Your task to perform on an android device: Open accessibility settings Image 0: 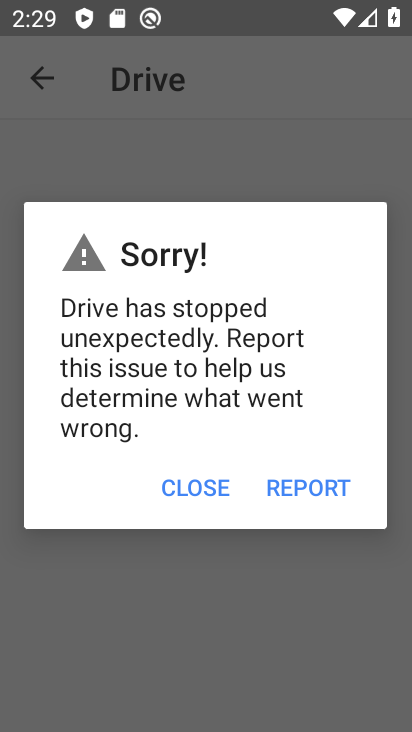
Step 0: press home button
Your task to perform on an android device: Open accessibility settings Image 1: 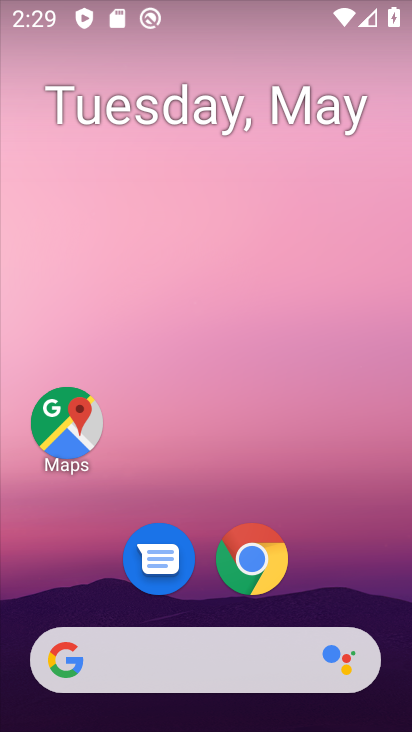
Step 1: drag from (203, 612) to (199, 248)
Your task to perform on an android device: Open accessibility settings Image 2: 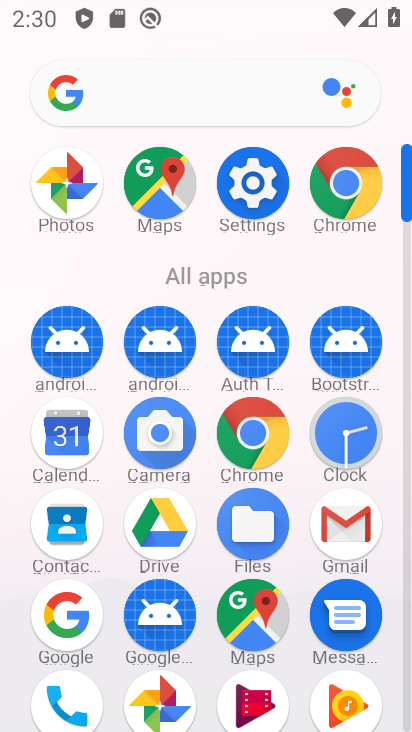
Step 2: click (231, 204)
Your task to perform on an android device: Open accessibility settings Image 3: 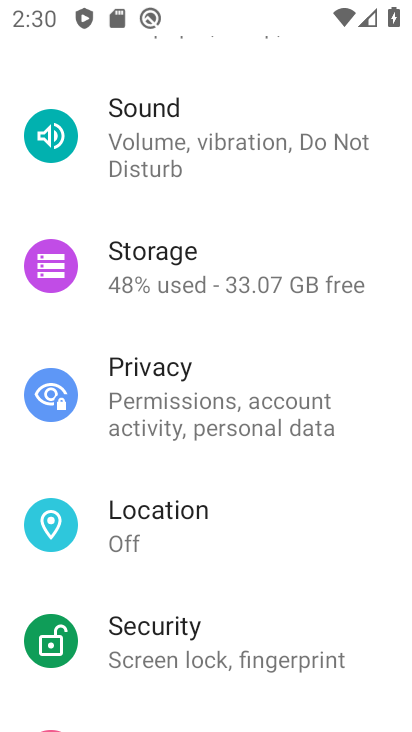
Step 3: drag from (214, 599) to (226, 181)
Your task to perform on an android device: Open accessibility settings Image 4: 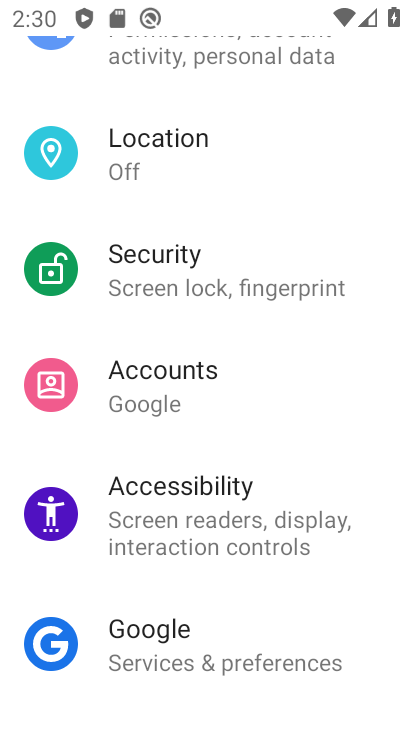
Step 4: click (220, 476)
Your task to perform on an android device: Open accessibility settings Image 5: 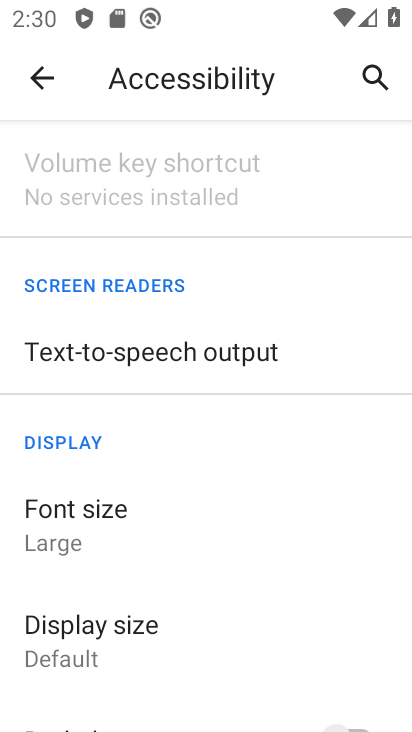
Step 5: task complete